Your task to perform on an android device: Do I have any events tomorrow? Image 0: 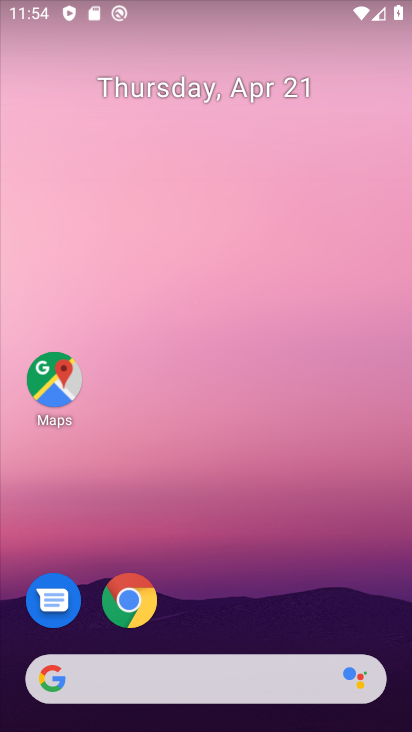
Step 0: click (393, 134)
Your task to perform on an android device: Do I have any events tomorrow? Image 1: 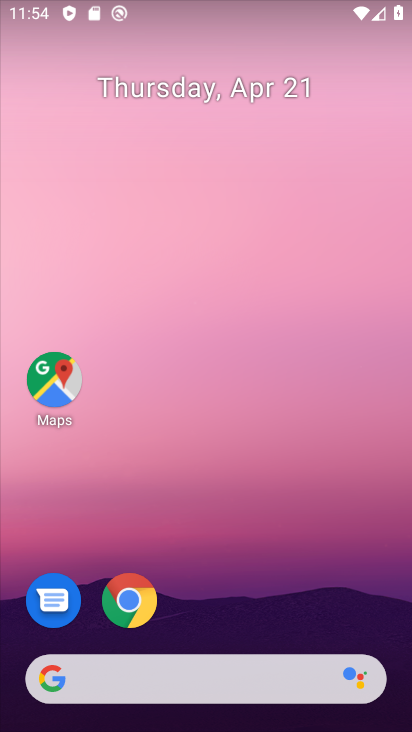
Step 1: drag from (386, 638) to (402, 165)
Your task to perform on an android device: Do I have any events tomorrow? Image 2: 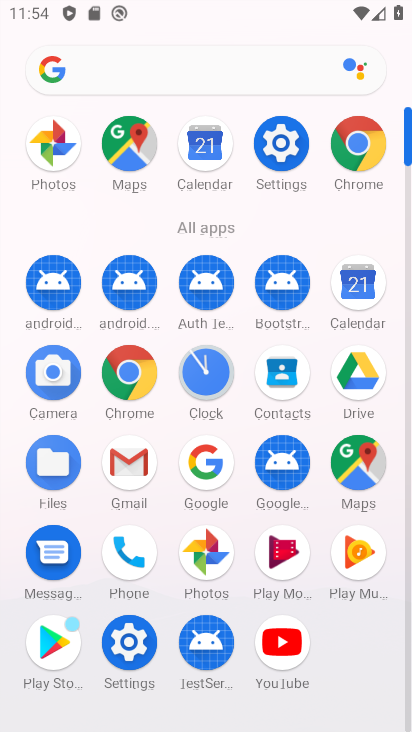
Step 2: click (360, 292)
Your task to perform on an android device: Do I have any events tomorrow? Image 3: 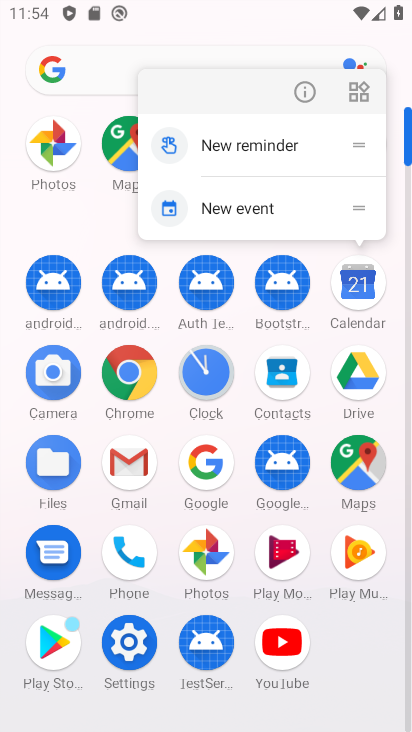
Step 3: click (347, 288)
Your task to perform on an android device: Do I have any events tomorrow? Image 4: 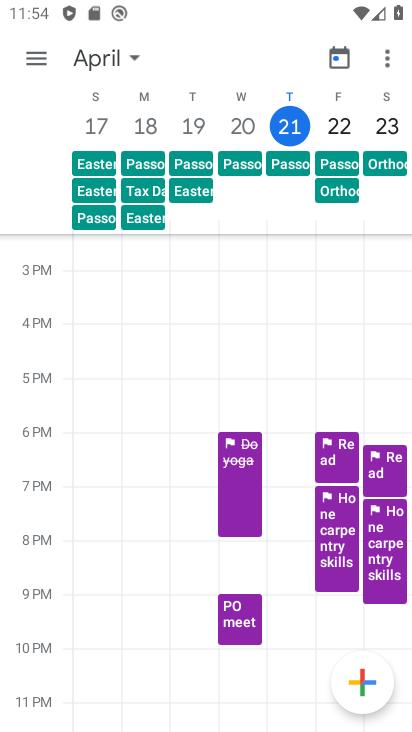
Step 4: click (336, 119)
Your task to perform on an android device: Do I have any events tomorrow? Image 5: 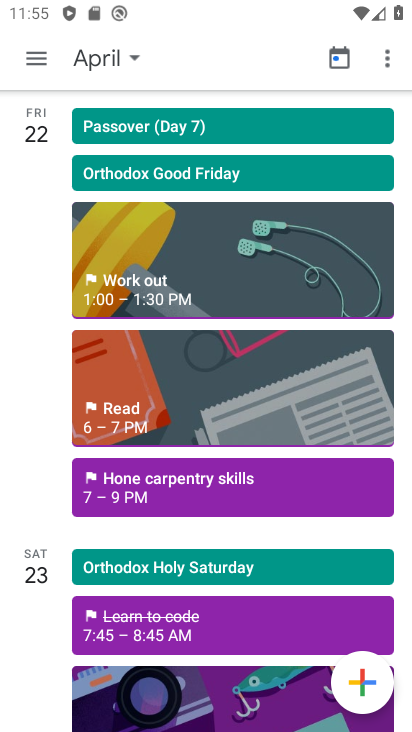
Step 5: task complete